Your task to perform on an android device: turn off location history Image 0: 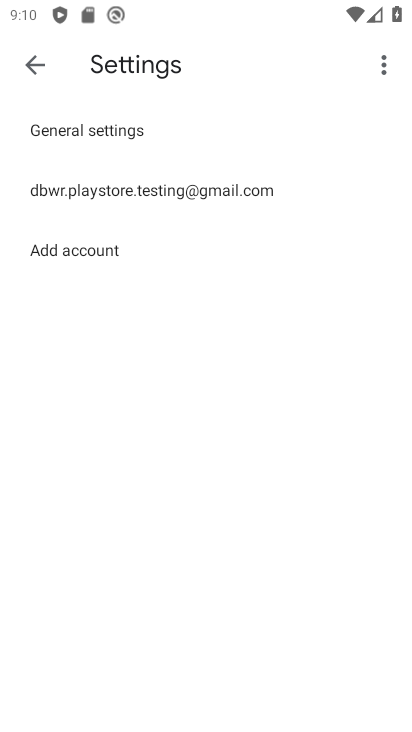
Step 0: press home button
Your task to perform on an android device: turn off location history Image 1: 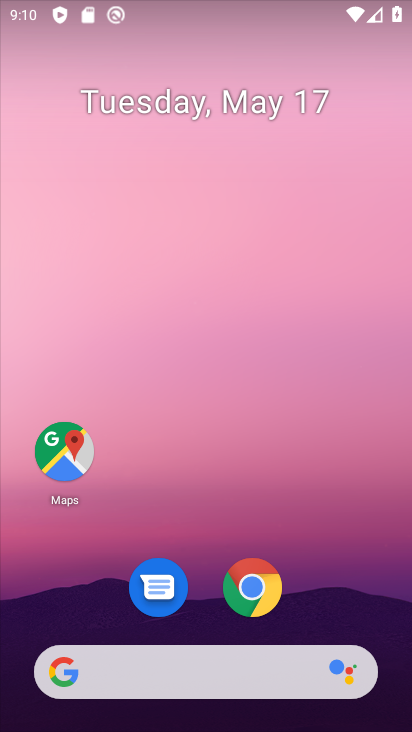
Step 1: drag from (286, 549) to (309, 187)
Your task to perform on an android device: turn off location history Image 2: 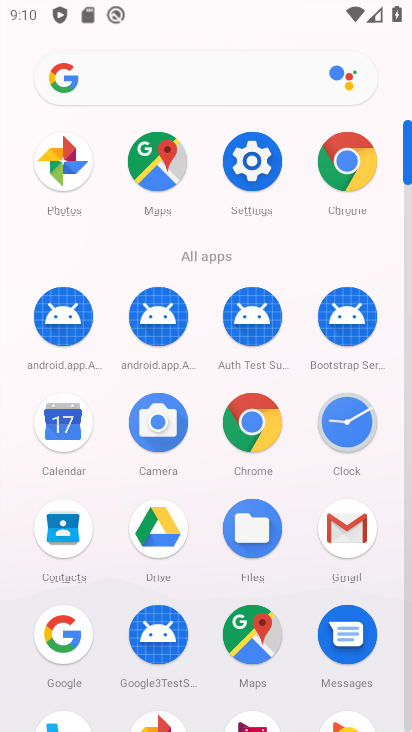
Step 2: click (258, 644)
Your task to perform on an android device: turn off location history Image 3: 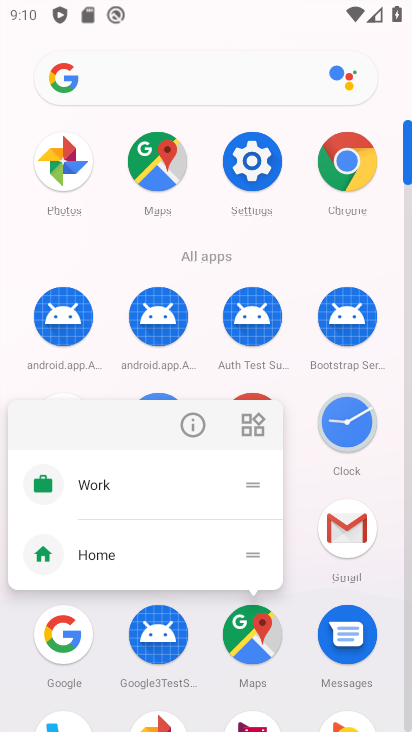
Step 3: click (192, 426)
Your task to perform on an android device: turn off location history Image 4: 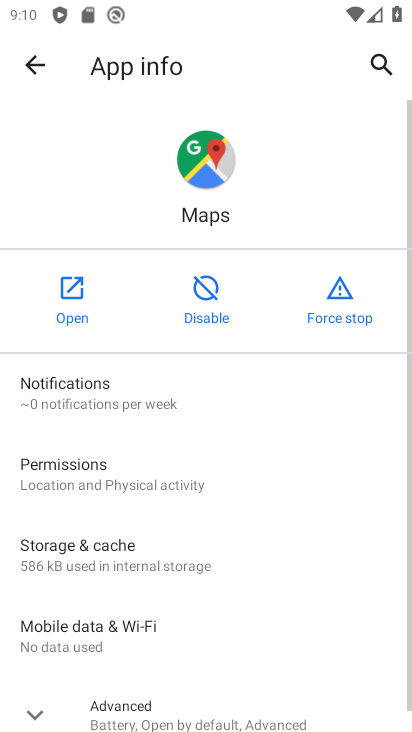
Step 4: click (82, 304)
Your task to perform on an android device: turn off location history Image 5: 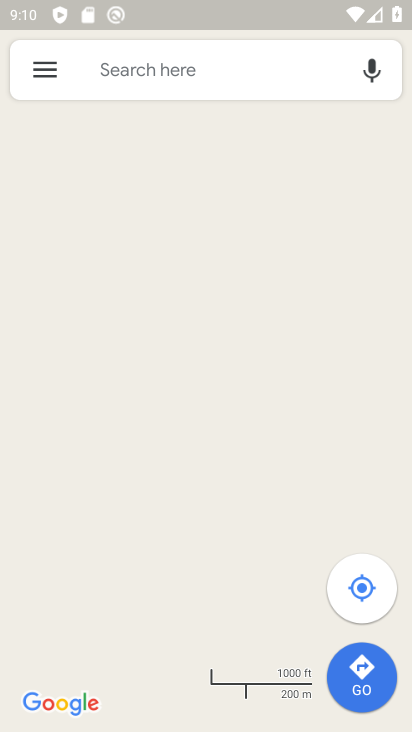
Step 5: click (40, 82)
Your task to perform on an android device: turn off location history Image 6: 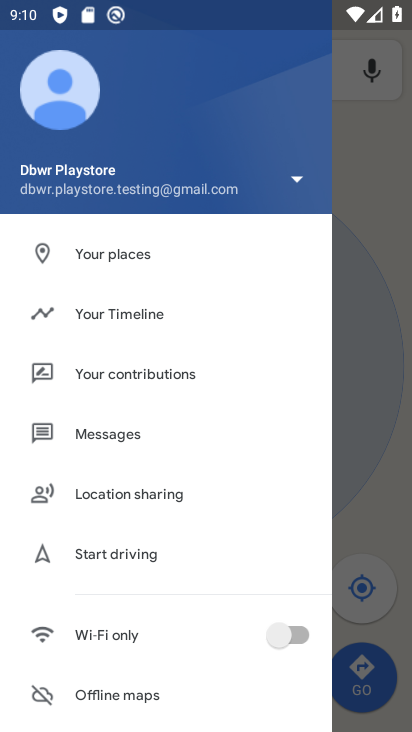
Step 6: drag from (157, 600) to (224, 264)
Your task to perform on an android device: turn off location history Image 7: 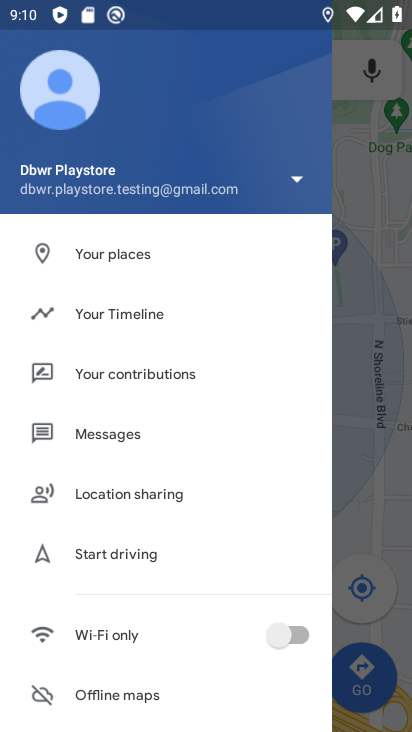
Step 7: drag from (192, 502) to (243, 285)
Your task to perform on an android device: turn off location history Image 8: 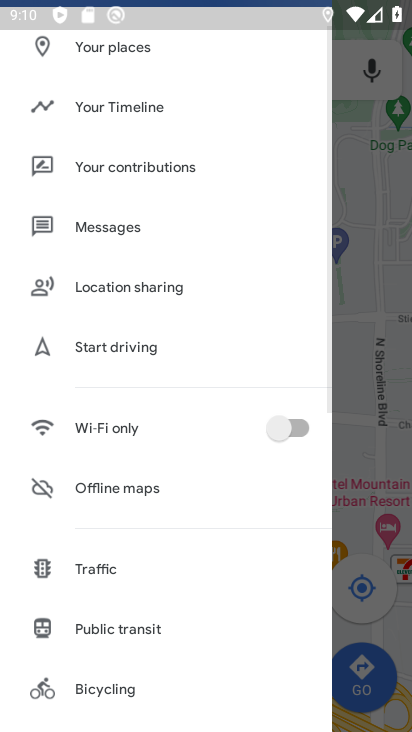
Step 8: drag from (169, 502) to (238, 218)
Your task to perform on an android device: turn off location history Image 9: 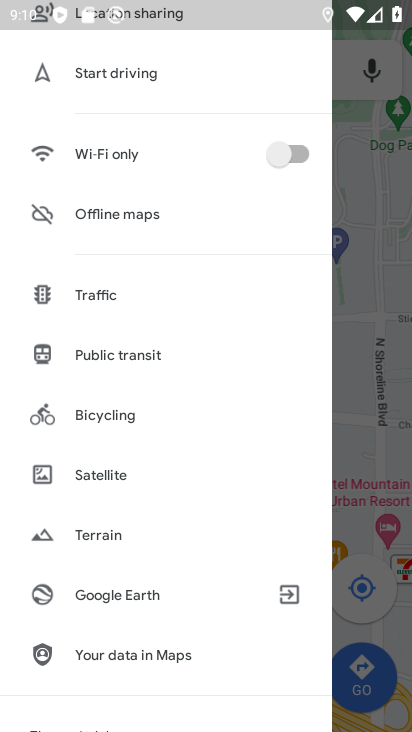
Step 9: drag from (247, 203) to (272, 143)
Your task to perform on an android device: turn off location history Image 10: 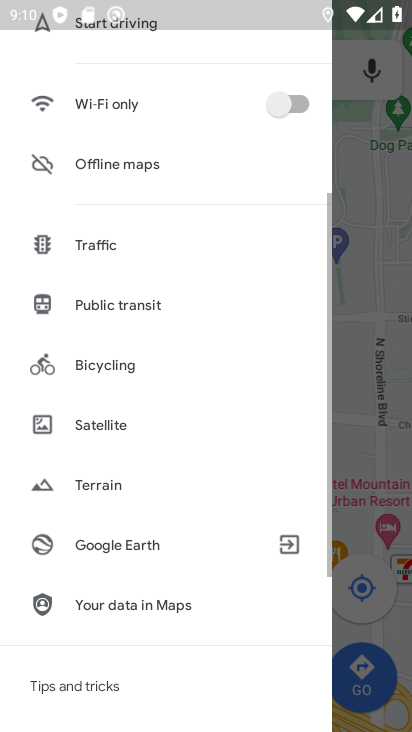
Step 10: drag from (218, 584) to (234, 181)
Your task to perform on an android device: turn off location history Image 11: 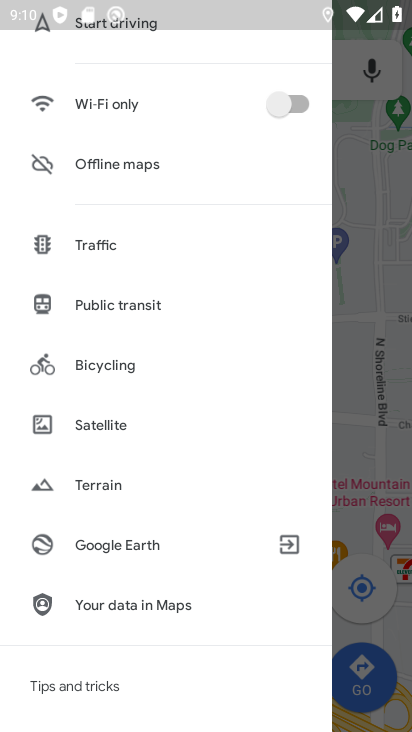
Step 11: drag from (181, 598) to (235, 186)
Your task to perform on an android device: turn off location history Image 12: 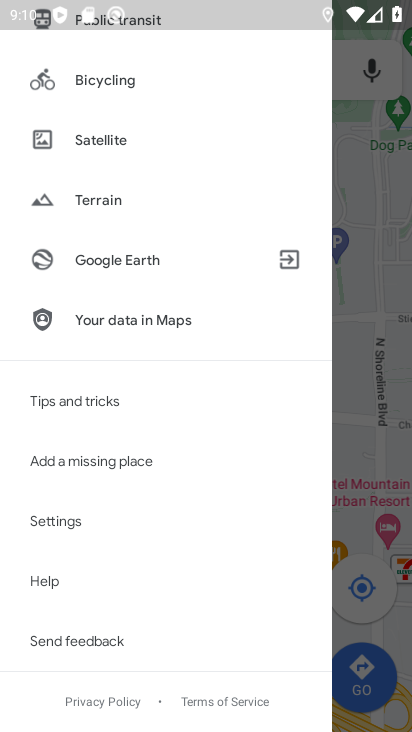
Step 12: click (88, 525)
Your task to perform on an android device: turn off location history Image 13: 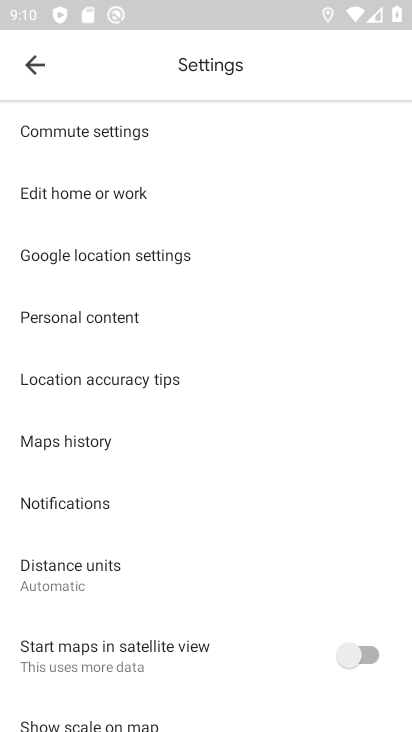
Step 13: click (148, 257)
Your task to perform on an android device: turn off location history Image 14: 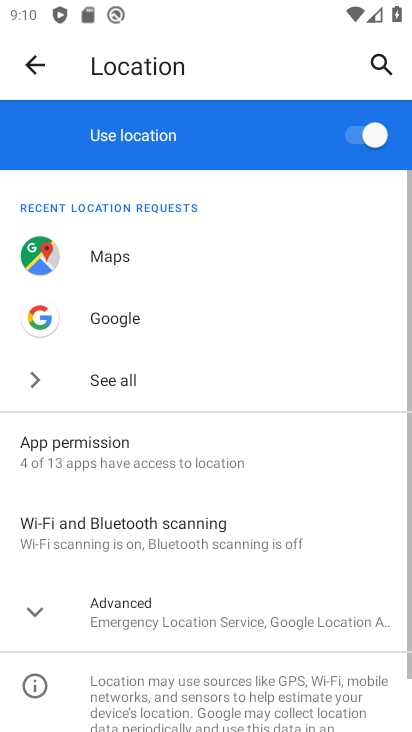
Step 14: click (153, 625)
Your task to perform on an android device: turn off location history Image 15: 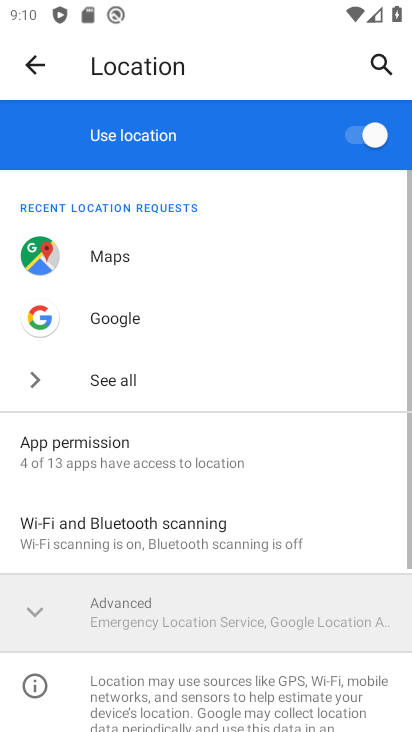
Step 15: drag from (158, 614) to (282, 203)
Your task to perform on an android device: turn off location history Image 16: 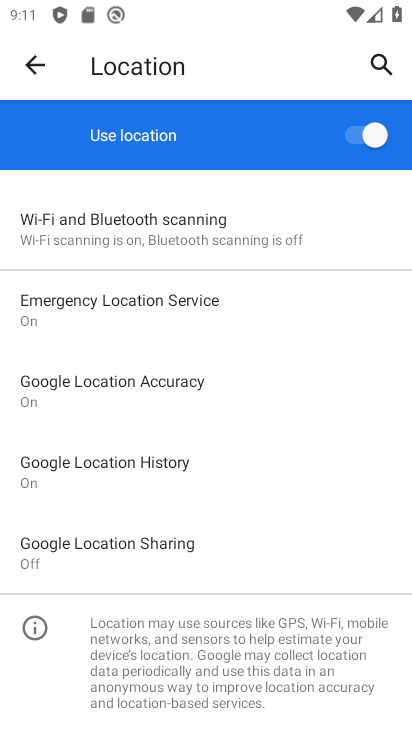
Step 16: click (159, 474)
Your task to perform on an android device: turn off location history Image 17: 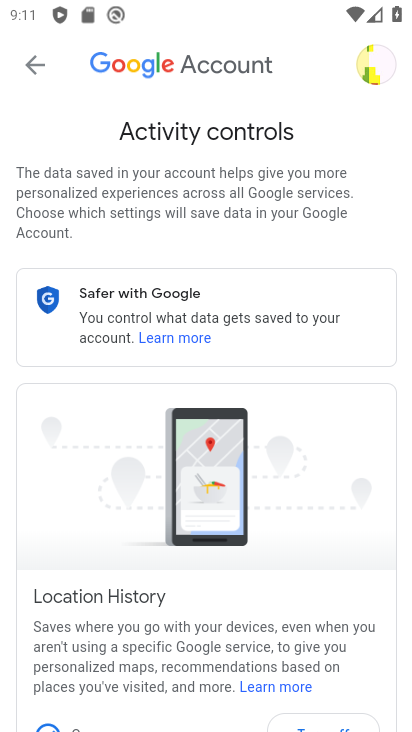
Step 17: drag from (319, 593) to (275, 191)
Your task to perform on an android device: turn off location history Image 18: 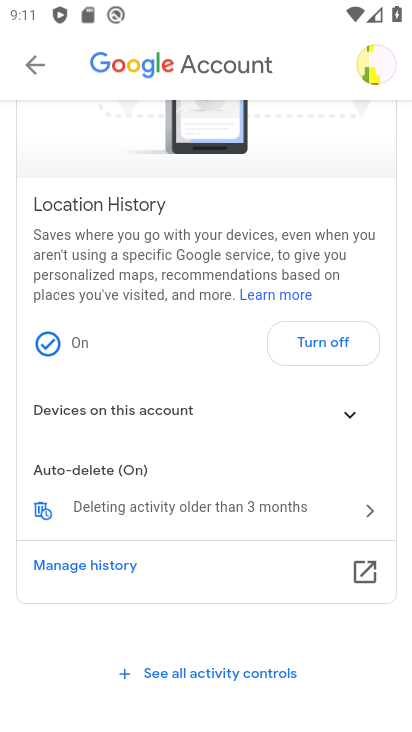
Step 18: click (320, 349)
Your task to perform on an android device: turn off location history Image 19: 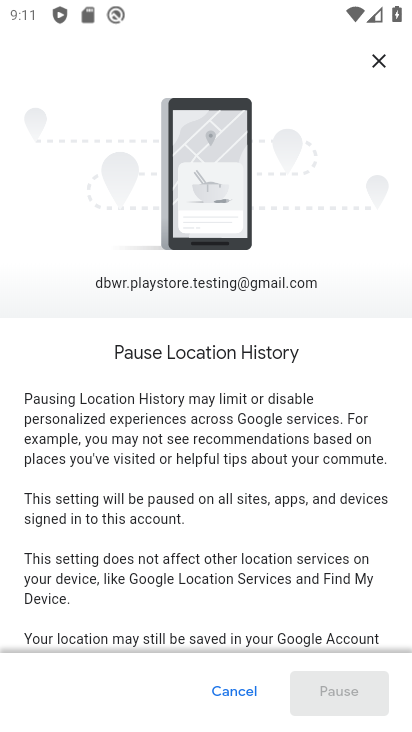
Step 19: drag from (324, 584) to (284, 77)
Your task to perform on an android device: turn off location history Image 20: 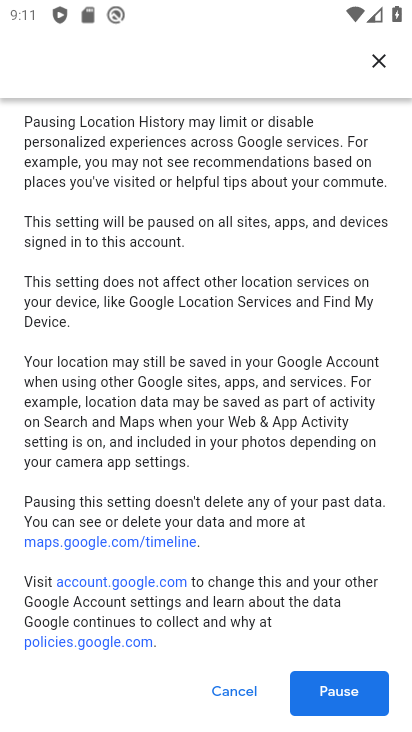
Step 20: drag from (289, 475) to (306, 176)
Your task to perform on an android device: turn off location history Image 21: 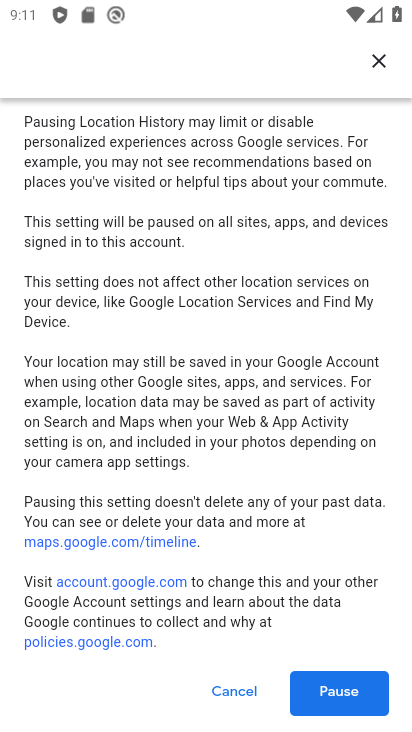
Step 21: click (351, 689)
Your task to perform on an android device: turn off location history Image 22: 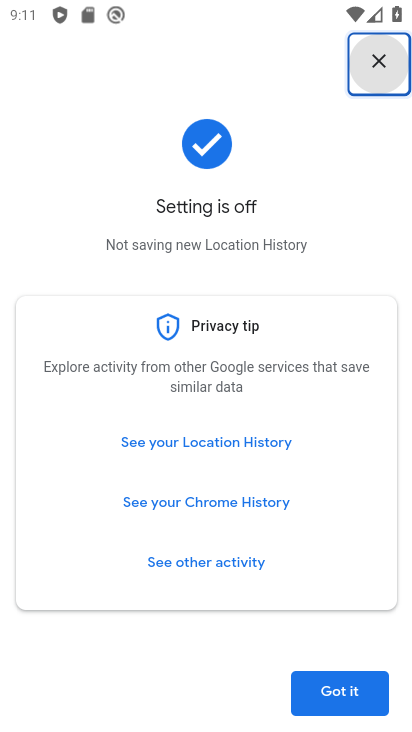
Step 22: click (350, 694)
Your task to perform on an android device: turn off location history Image 23: 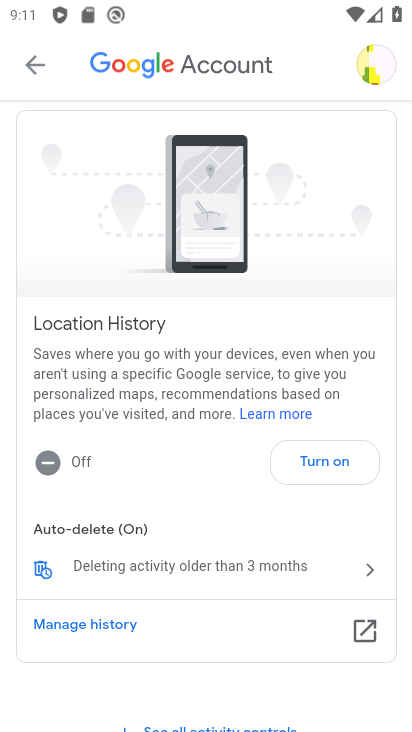
Step 23: task complete